Your task to perform on an android device: change the upload size in google photos Image 0: 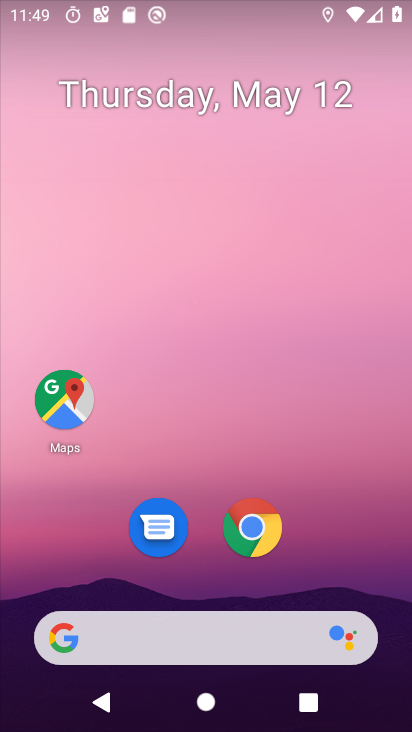
Step 0: drag from (314, 553) to (274, 198)
Your task to perform on an android device: change the upload size in google photos Image 1: 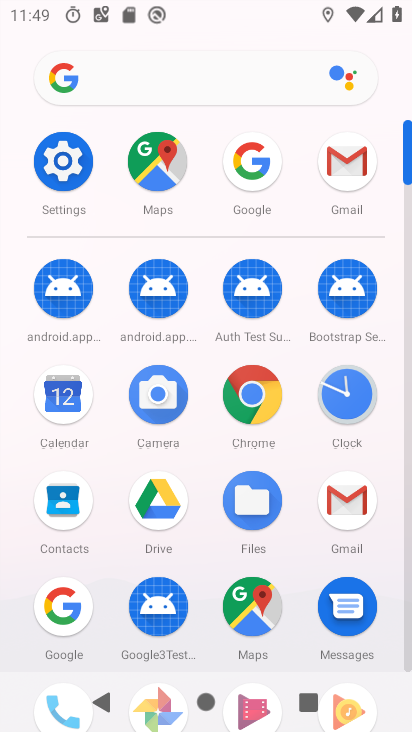
Step 1: drag from (208, 647) to (262, 283)
Your task to perform on an android device: change the upload size in google photos Image 2: 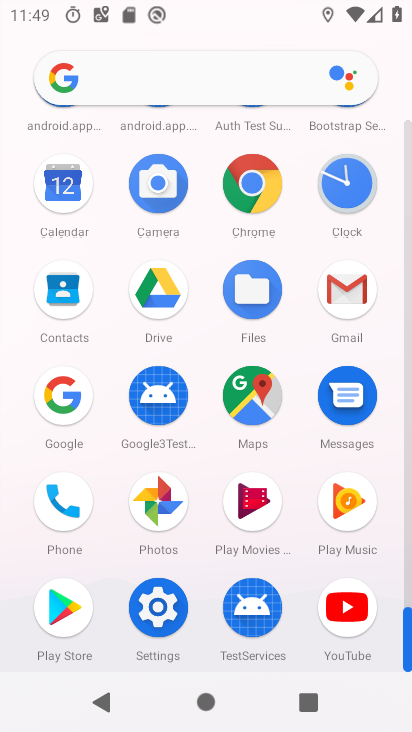
Step 2: click (170, 497)
Your task to perform on an android device: change the upload size in google photos Image 3: 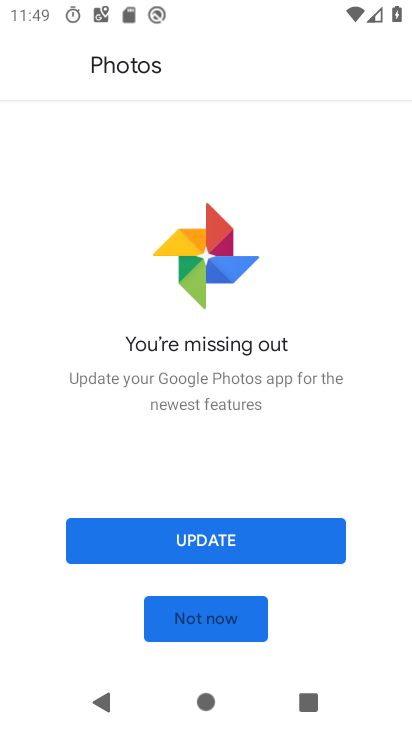
Step 3: click (182, 546)
Your task to perform on an android device: change the upload size in google photos Image 4: 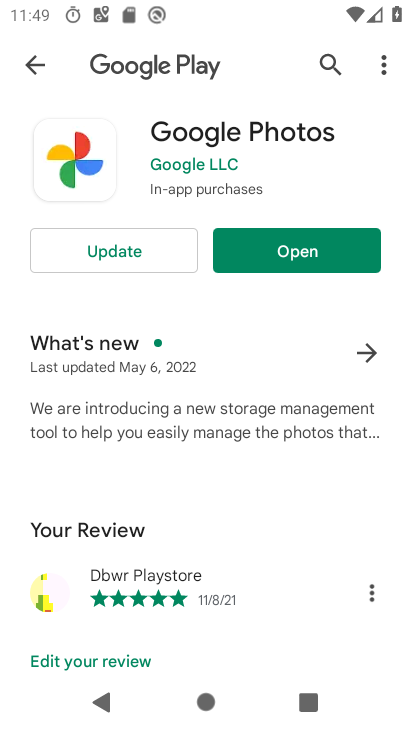
Step 4: click (120, 232)
Your task to perform on an android device: change the upload size in google photos Image 5: 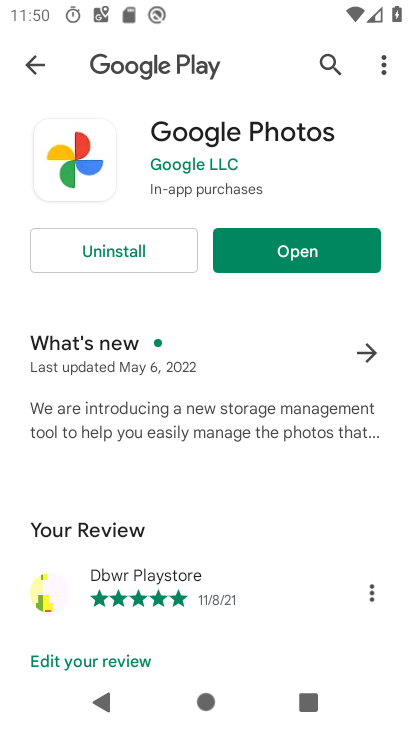
Step 5: click (305, 251)
Your task to perform on an android device: change the upload size in google photos Image 6: 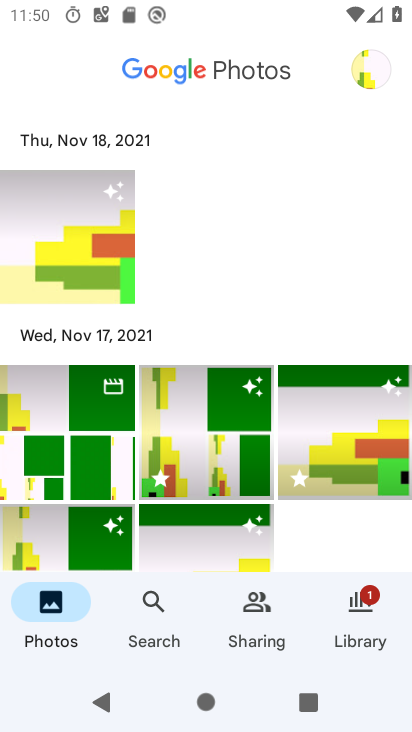
Step 6: click (358, 72)
Your task to perform on an android device: change the upload size in google photos Image 7: 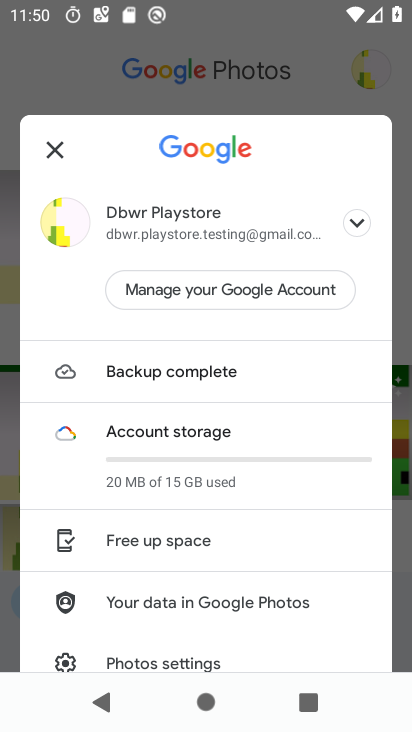
Step 7: drag from (171, 622) to (257, 233)
Your task to perform on an android device: change the upload size in google photos Image 8: 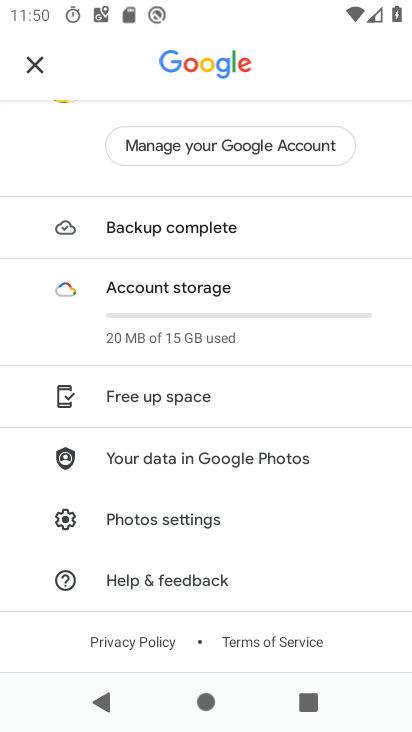
Step 8: drag from (192, 624) to (210, 435)
Your task to perform on an android device: change the upload size in google photos Image 9: 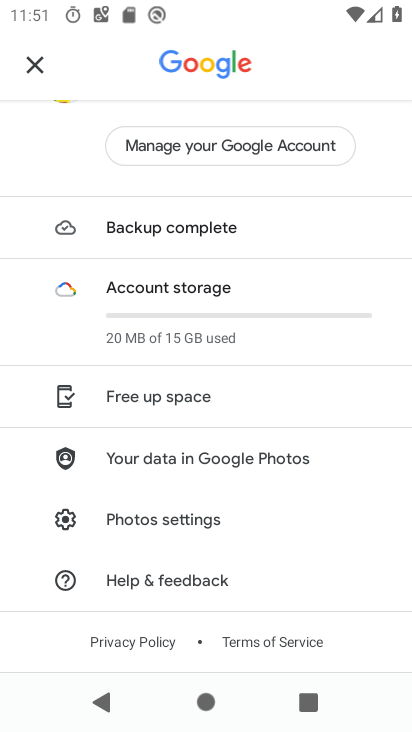
Step 9: click (126, 533)
Your task to perform on an android device: change the upload size in google photos Image 10: 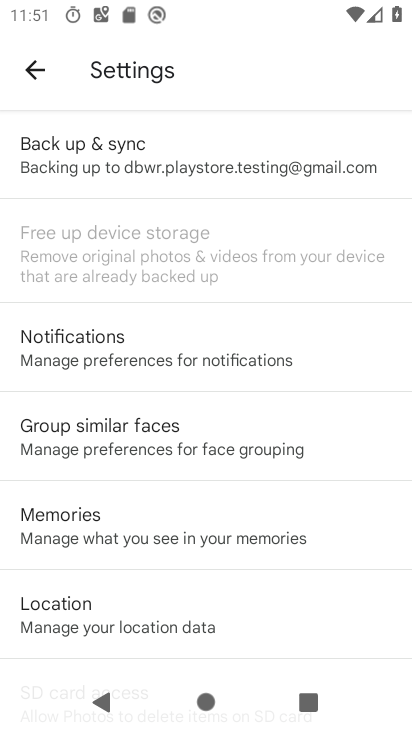
Step 10: drag from (150, 586) to (218, 276)
Your task to perform on an android device: change the upload size in google photos Image 11: 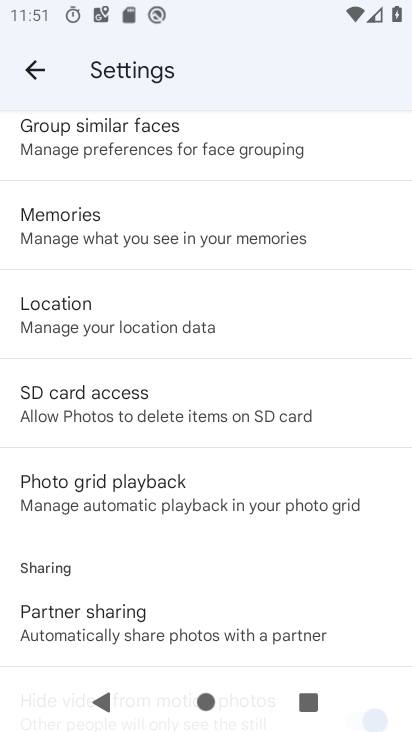
Step 11: drag from (218, 266) to (200, 608)
Your task to perform on an android device: change the upload size in google photos Image 12: 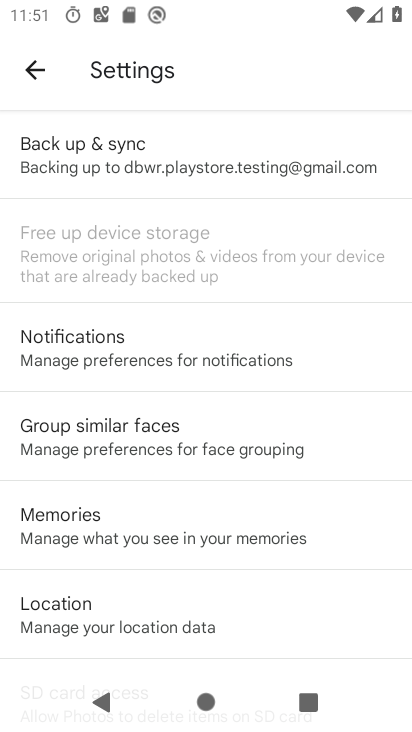
Step 12: drag from (216, 399) to (167, 657)
Your task to perform on an android device: change the upload size in google photos Image 13: 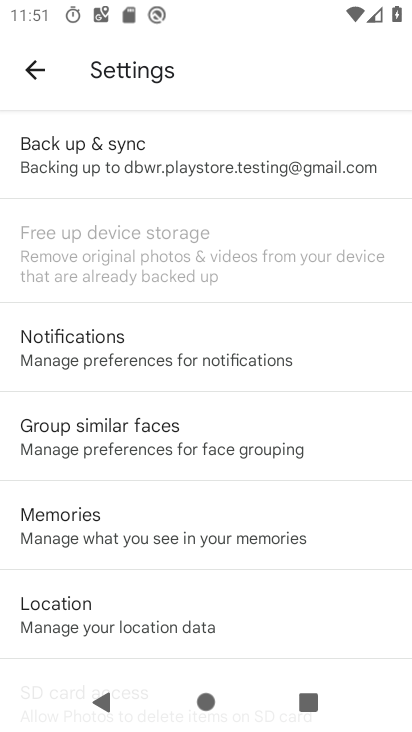
Step 13: click (175, 174)
Your task to perform on an android device: change the upload size in google photos Image 14: 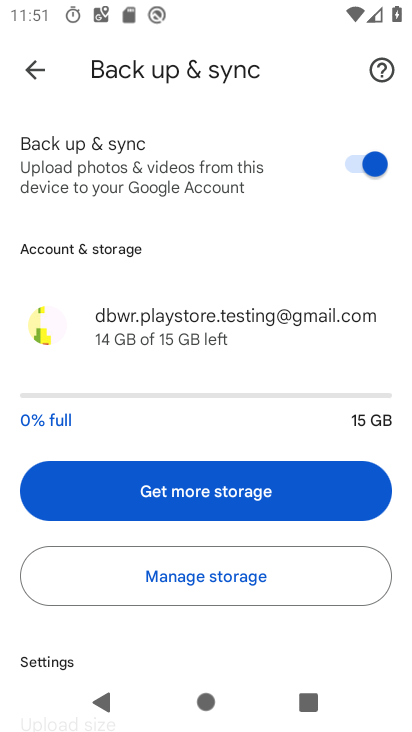
Step 14: drag from (188, 441) to (226, 150)
Your task to perform on an android device: change the upload size in google photos Image 15: 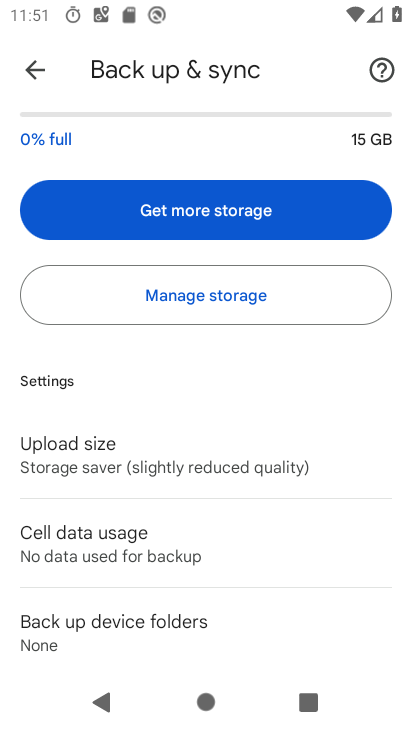
Step 15: click (117, 473)
Your task to perform on an android device: change the upload size in google photos Image 16: 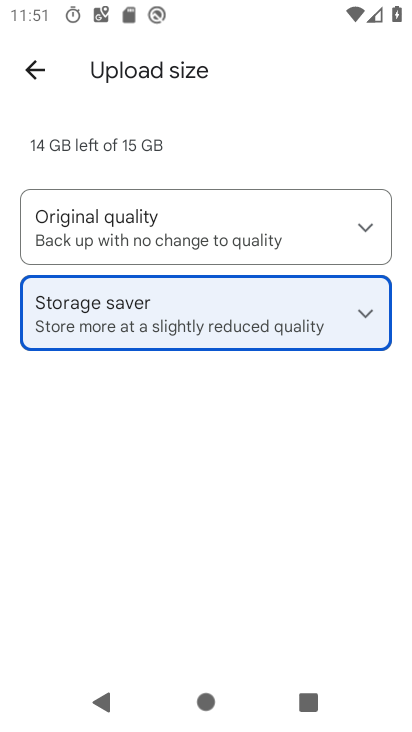
Step 16: click (241, 241)
Your task to perform on an android device: change the upload size in google photos Image 17: 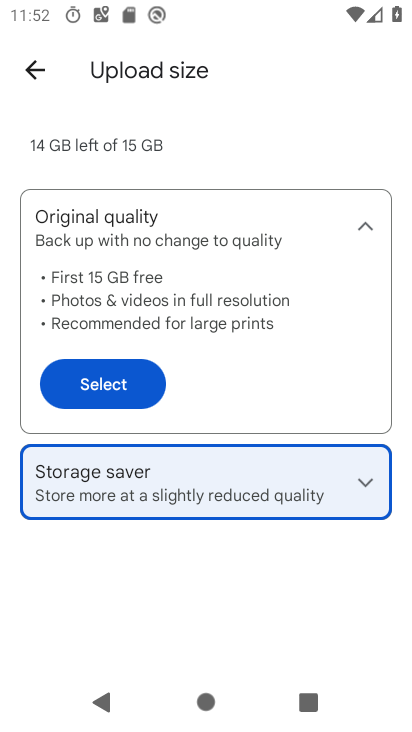
Step 17: task complete